Your task to perform on an android device: refresh tabs in the chrome app Image 0: 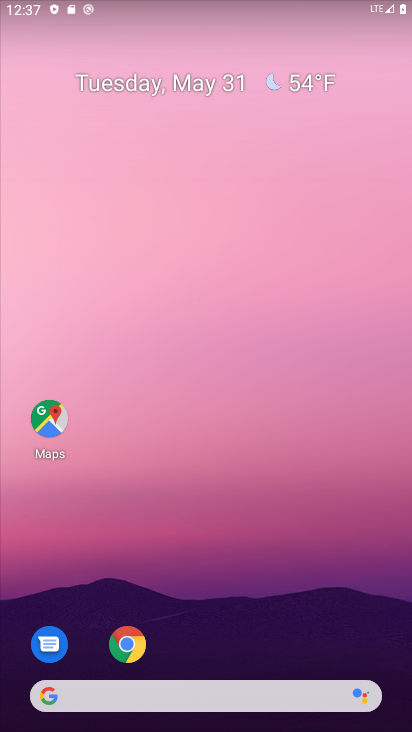
Step 0: press home button
Your task to perform on an android device: refresh tabs in the chrome app Image 1: 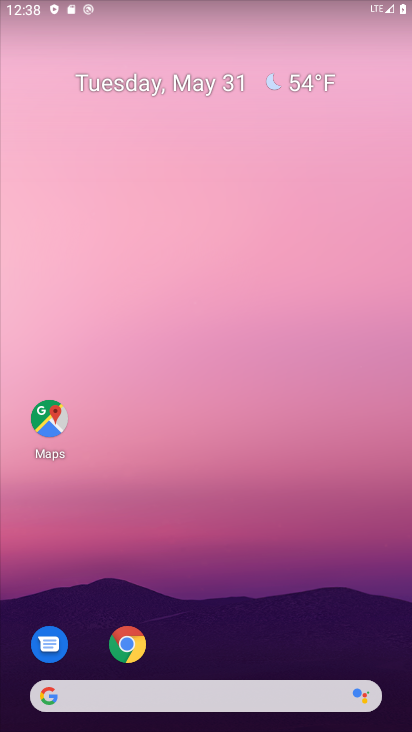
Step 1: click (131, 640)
Your task to perform on an android device: refresh tabs in the chrome app Image 2: 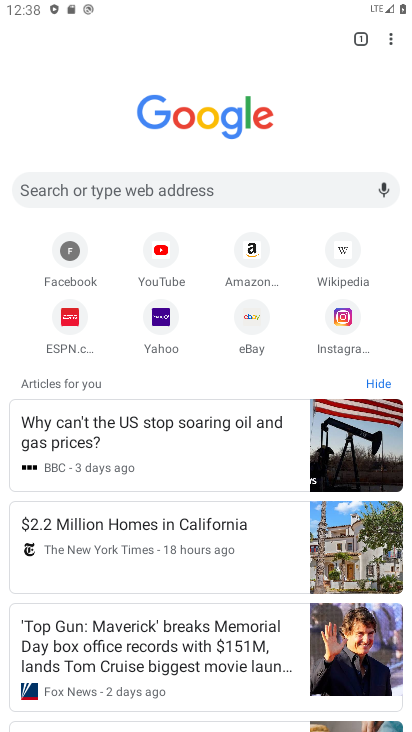
Step 2: click (393, 32)
Your task to perform on an android device: refresh tabs in the chrome app Image 3: 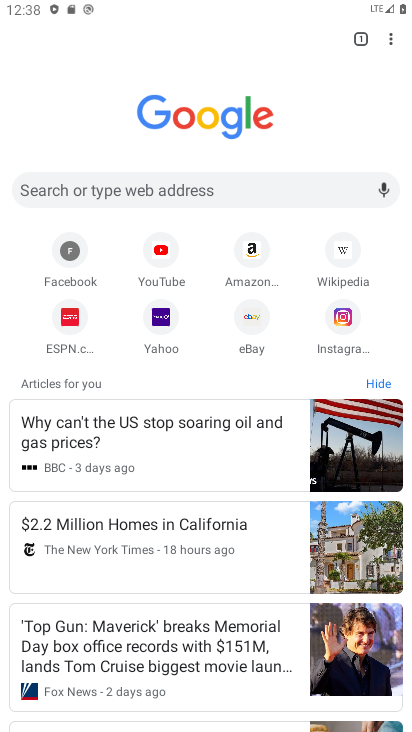
Step 3: task complete